Your task to perform on an android device: toggle show notifications on the lock screen Image 0: 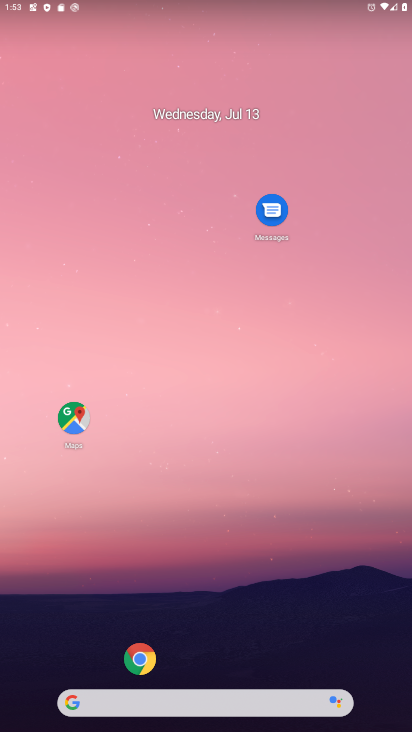
Step 0: click (142, 665)
Your task to perform on an android device: toggle show notifications on the lock screen Image 1: 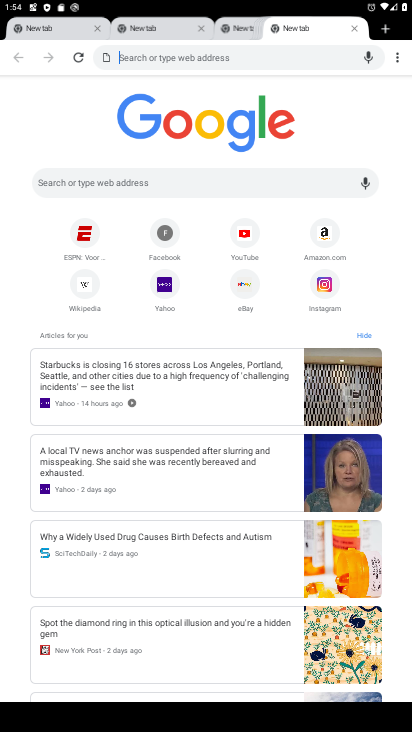
Step 1: click (397, 49)
Your task to perform on an android device: toggle show notifications on the lock screen Image 2: 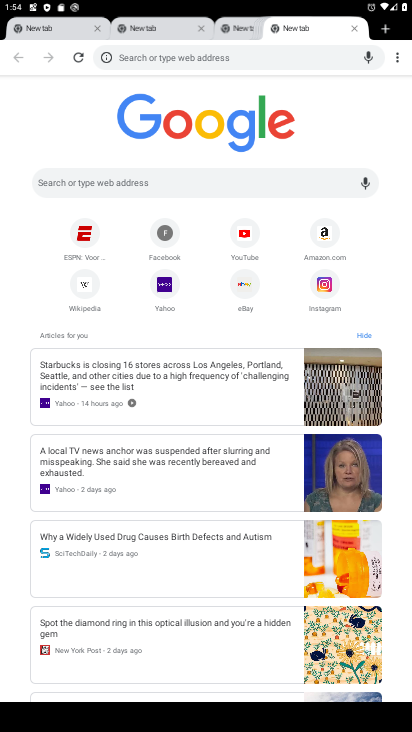
Step 2: click (393, 54)
Your task to perform on an android device: toggle show notifications on the lock screen Image 3: 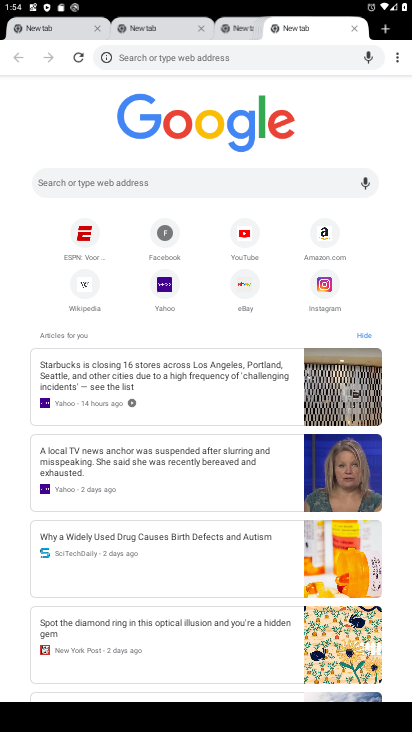
Step 3: task complete